Your task to perform on an android device: Open display settings Image 0: 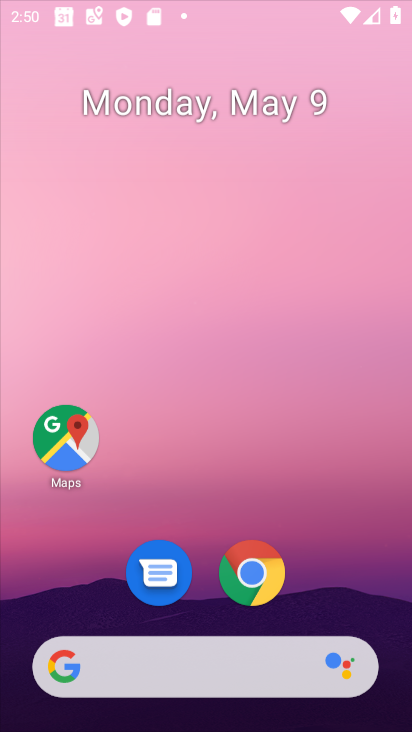
Step 0: click (205, 303)
Your task to perform on an android device: Open display settings Image 1: 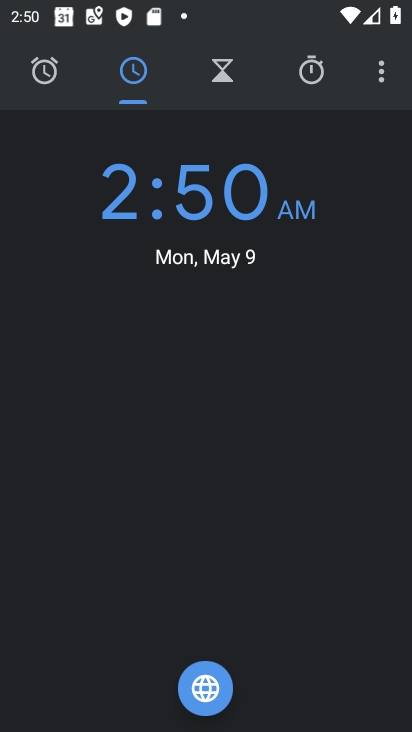
Step 1: press home button
Your task to perform on an android device: Open display settings Image 2: 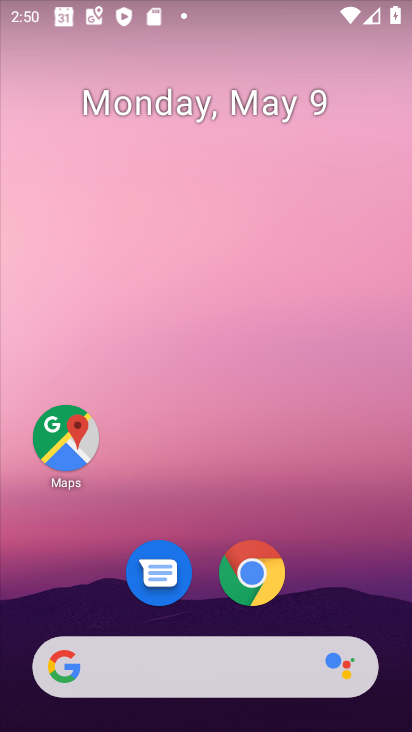
Step 2: drag from (220, 524) to (227, 290)
Your task to perform on an android device: Open display settings Image 3: 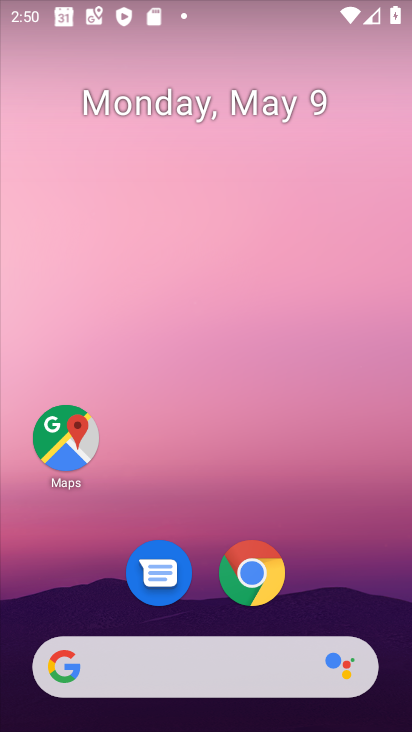
Step 3: drag from (227, 631) to (224, 196)
Your task to perform on an android device: Open display settings Image 4: 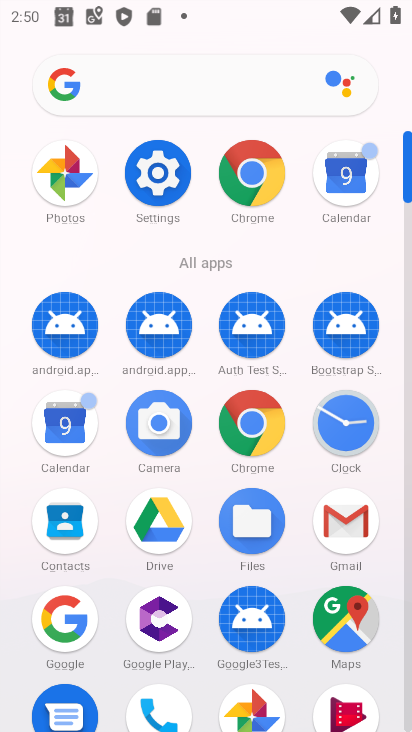
Step 4: click (157, 176)
Your task to perform on an android device: Open display settings Image 5: 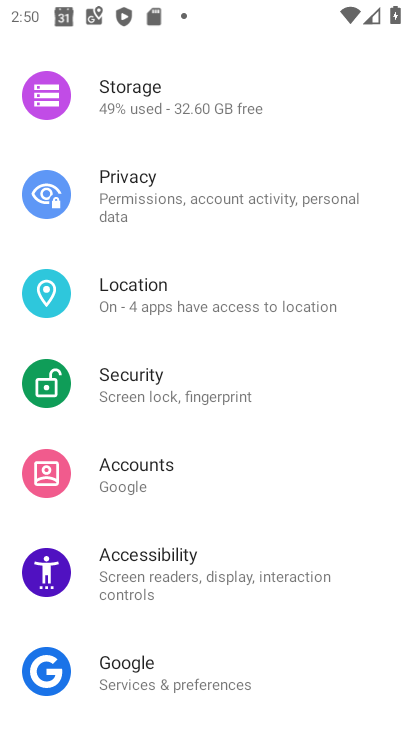
Step 5: drag from (190, 129) to (233, 587)
Your task to perform on an android device: Open display settings Image 6: 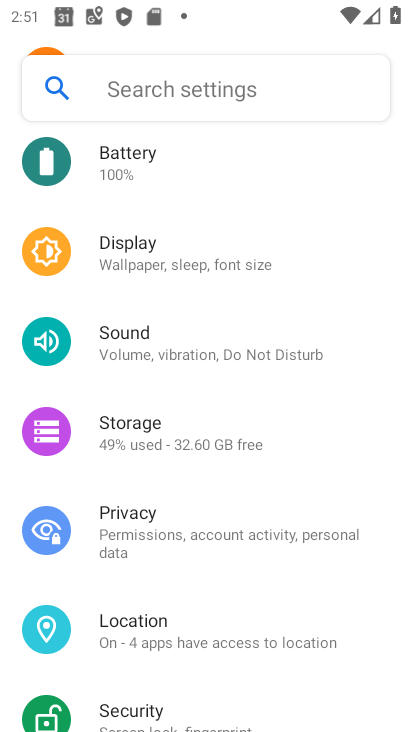
Step 6: click (201, 273)
Your task to perform on an android device: Open display settings Image 7: 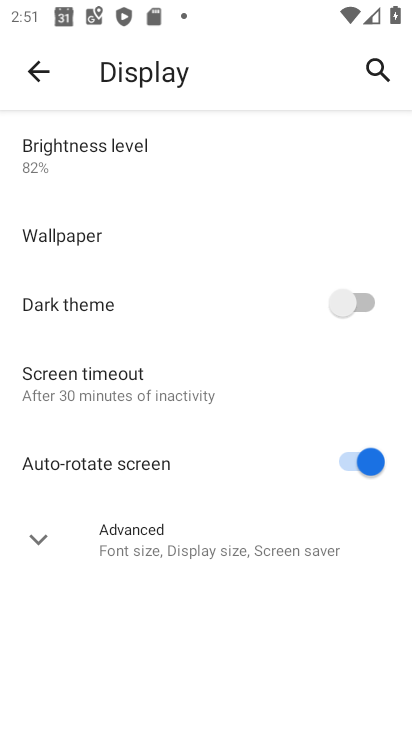
Step 7: click (228, 557)
Your task to perform on an android device: Open display settings Image 8: 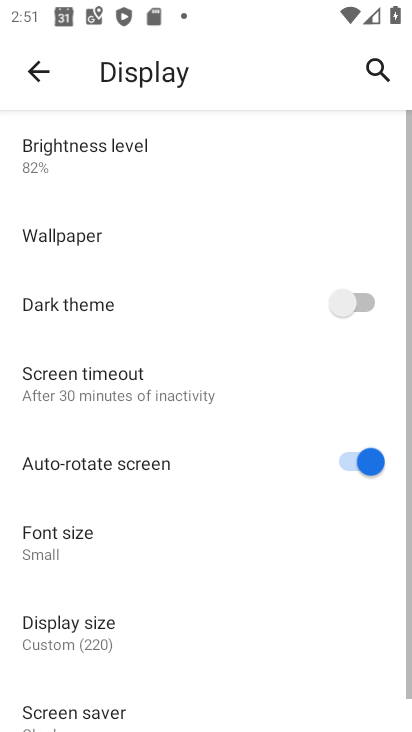
Step 8: task complete